Your task to perform on an android device: Open Google Chrome Image 0: 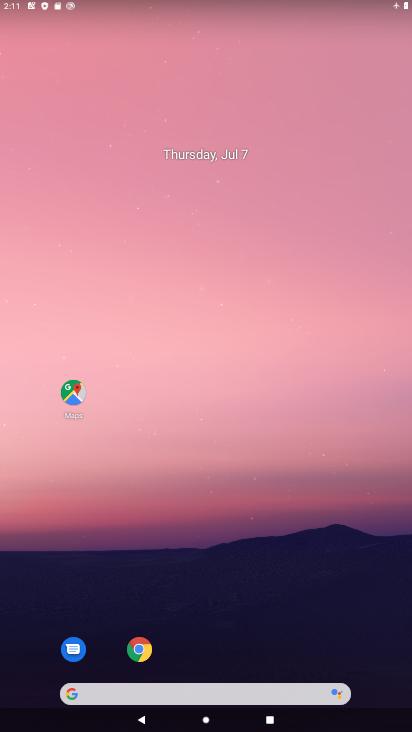
Step 0: drag from (294, 640) to (358, 3)
Your task to perform on an android device: Open Google Chrome Image 1: 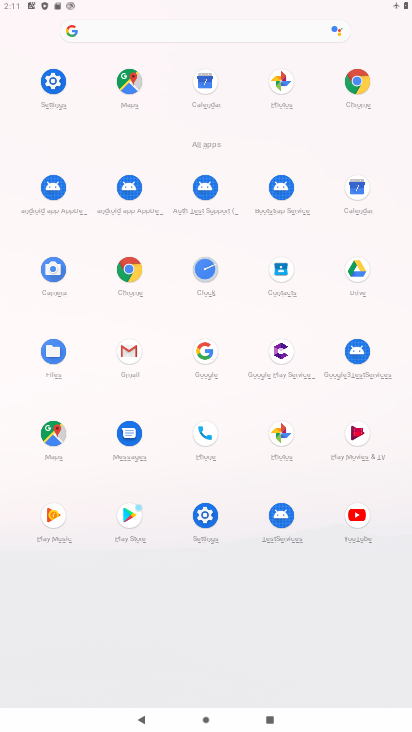
Step 1: click (124, 266)
Your task to perform on an android device: Open Google Chrome Image 2: 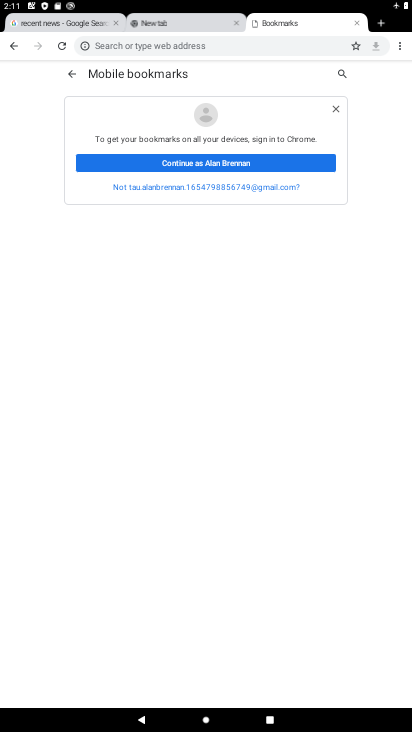
Step 2: task complete